Your task to perform on an android device: turn on bluetooth scan Image 0: 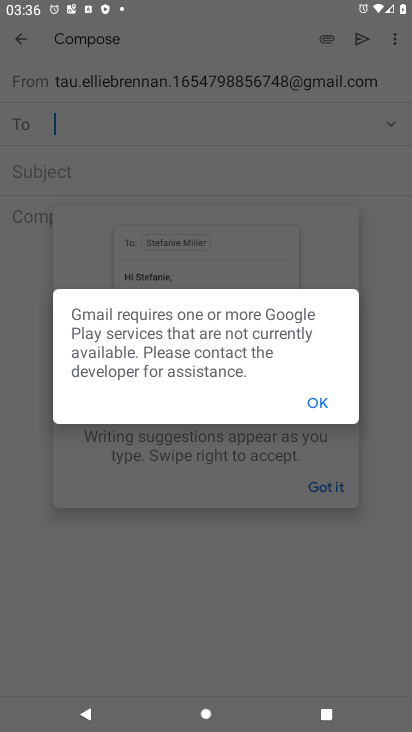
Step 0: press home button
Your task to perform on an android device: turn on bluetooth scan Image 1: 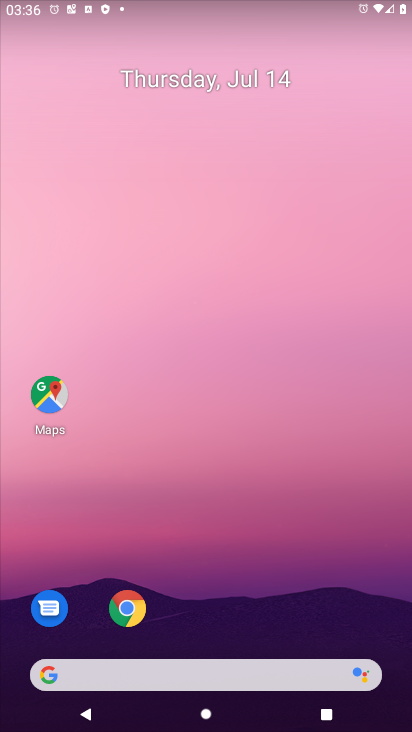
Step 1: drag from (391, 640) to (332, 147)
Your task to perform on an android device: turn on bluetooth scan Image 2: 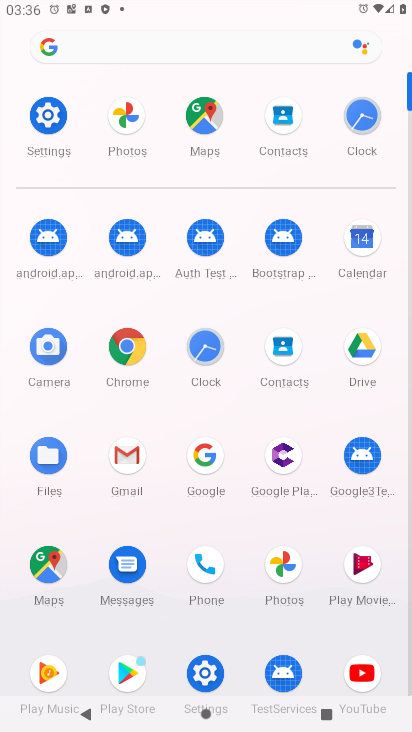
Step 2: click (204, 675)
Your task to perform on an android device: turn on bluetooth scan Image 3: 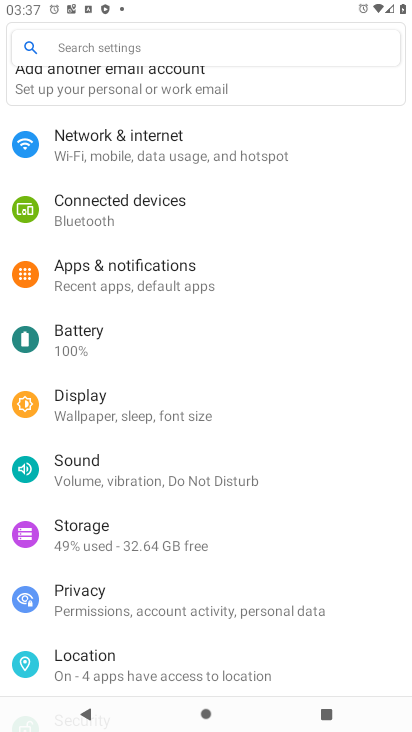
Step 3: click (71, 659)
Your task to perform on an android device: turn on bluetooth scan Image 4: 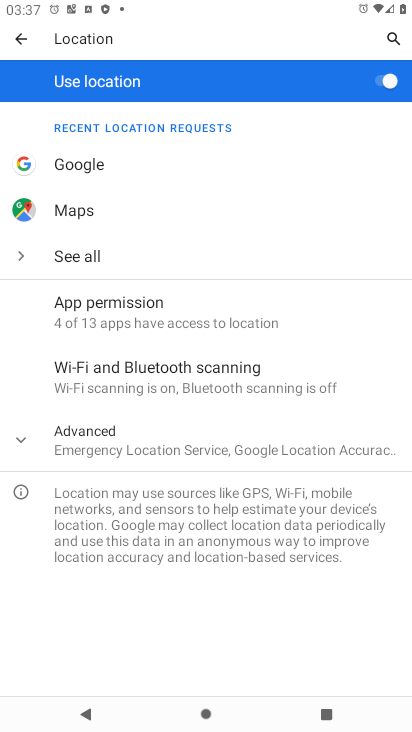
Step 4: click (160, 378)
Your task to perform on an android device: turn on bluetooth scan Image 5: 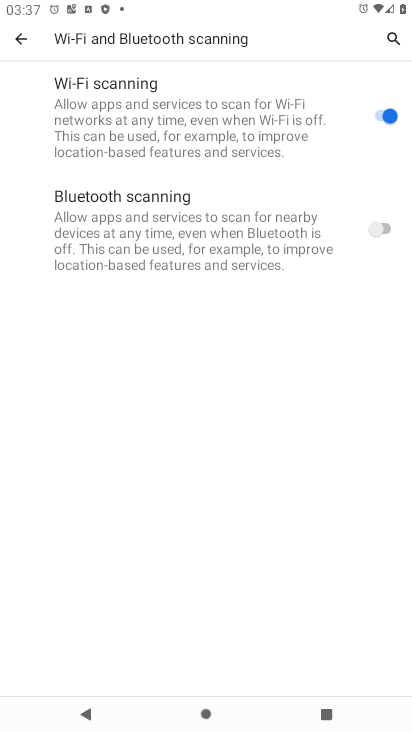
Step 5: click (379, 227)
Your task to perform on an android device: turn on bluetooth scan Image 6: 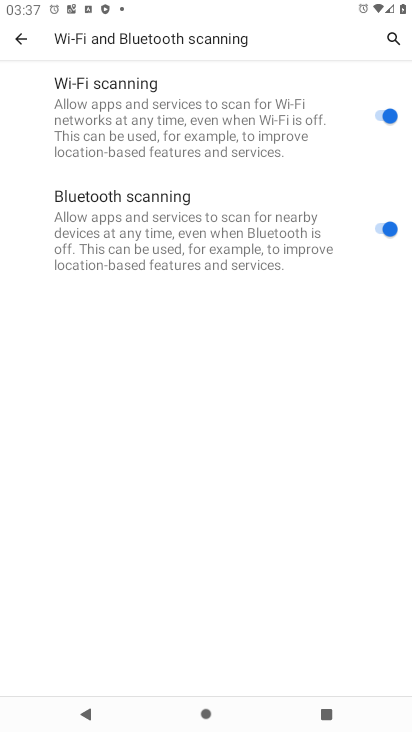
Step 6: task complete